Your task to perform on an android device: check out phone information Image 0: 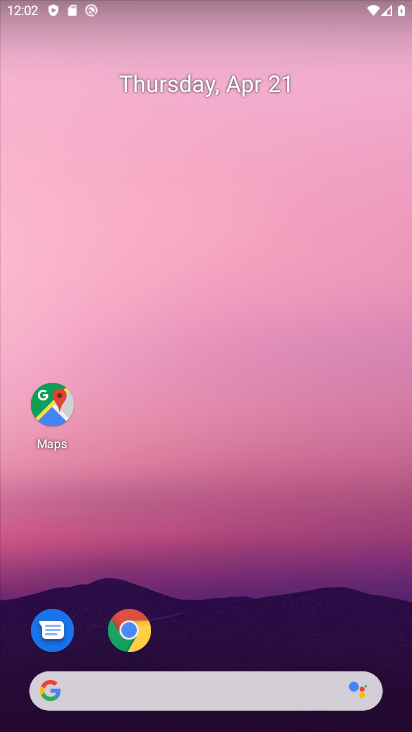
Step 0: drag from (336, 559) to (339, 96)
Your task to perform on an android device: check out phone information Image 1: 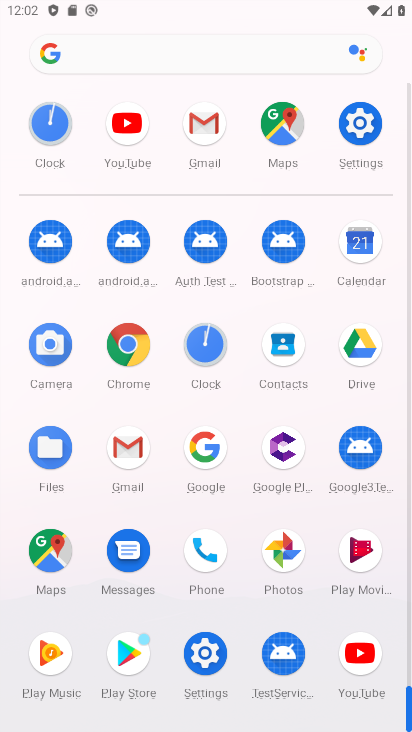
Step 1: click (357, 141)
Your task to perform on an android device: check out phone information Image 2: 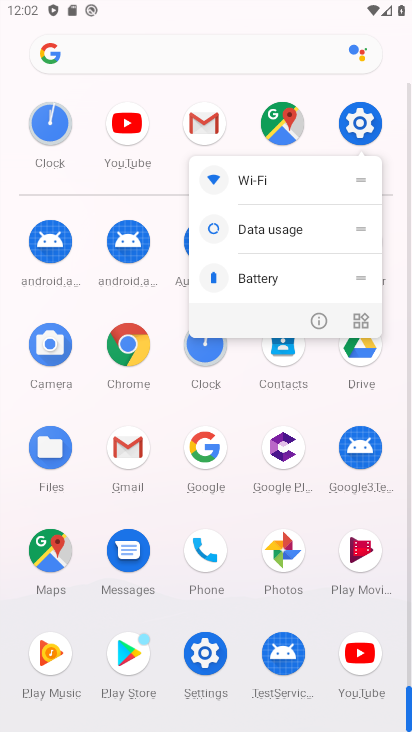
Step 2: click (360, 132)
Your task to perform on an android device: check out phone information Image 3: 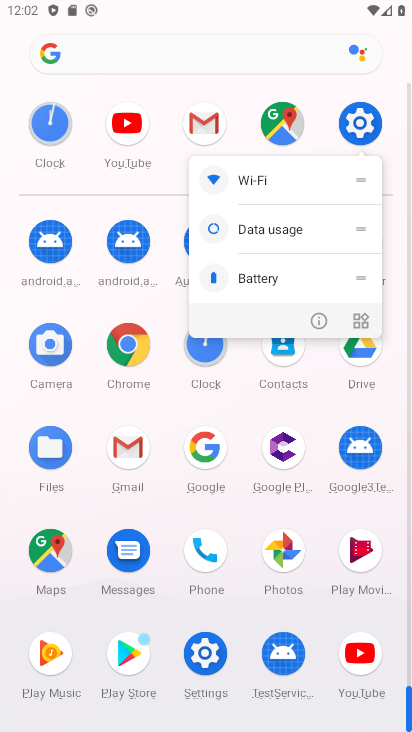
Step 3: click (360, 131)
Your task to perform on an android device: check out phone information Image 4: 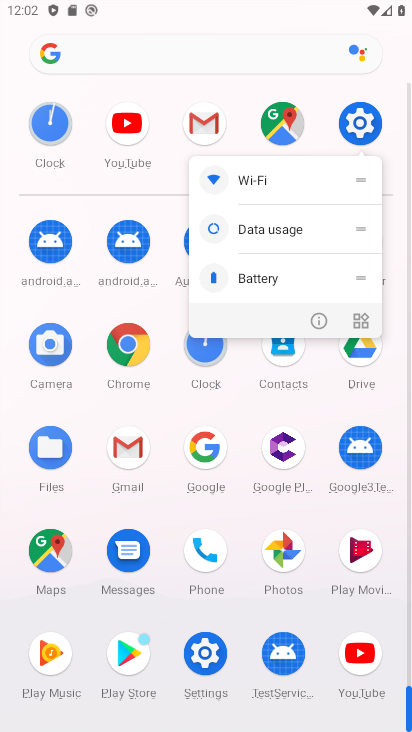
Step 4: click (360, 131)
Your task to perform on an android device: check out phone information Image 5: 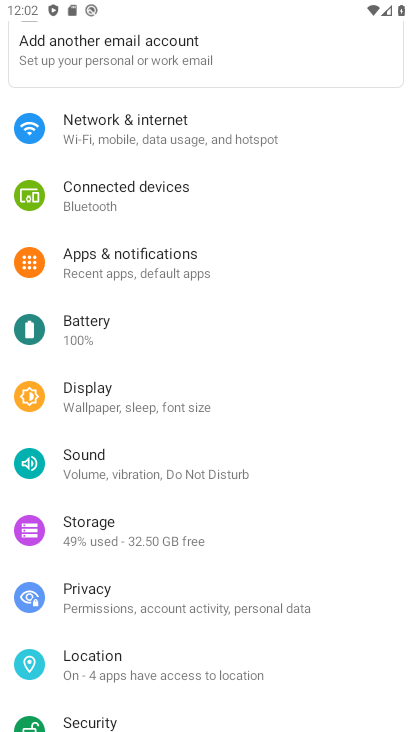
Step 5: drag from (191, 639) to (303, 160)
Your task to perform on an android device: check out phone information Image 6: 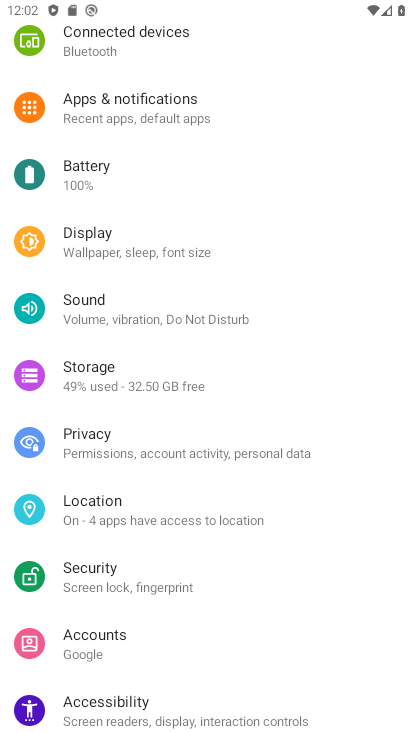
Step 6: drag from (236, 650) to (315, 193)
Your task to perform on an android device: check out phone information Image 7: 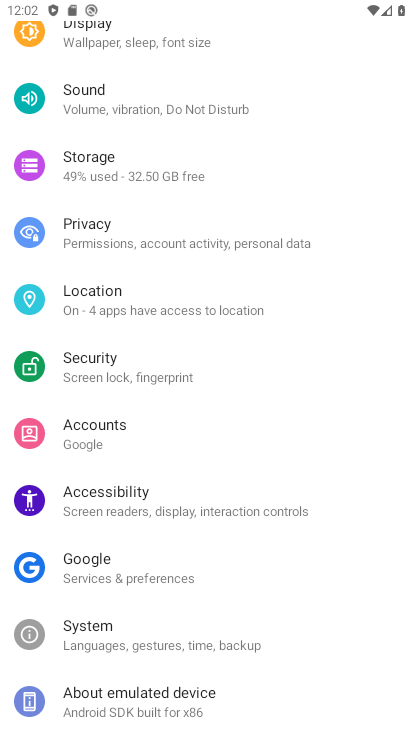
Step 7: drag from (255, 619) to (334, 196)
Your task to perform on an android device: check out phone information Image 8: 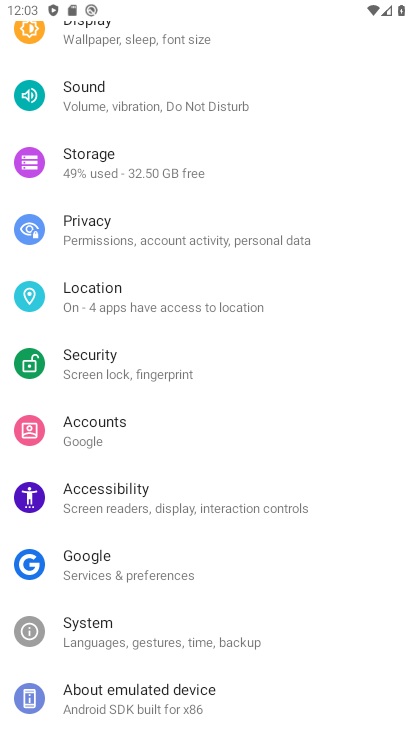
Step 8: click (139, 710)
Your task to perform on an android device: check out phone information Image 9: 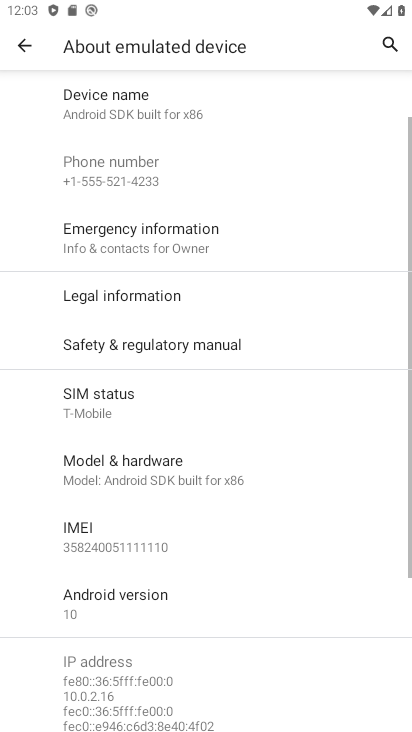
Step 9: task complete